Your task to perform on an android device: Open Youtube and go to "Your channel" Image 0: 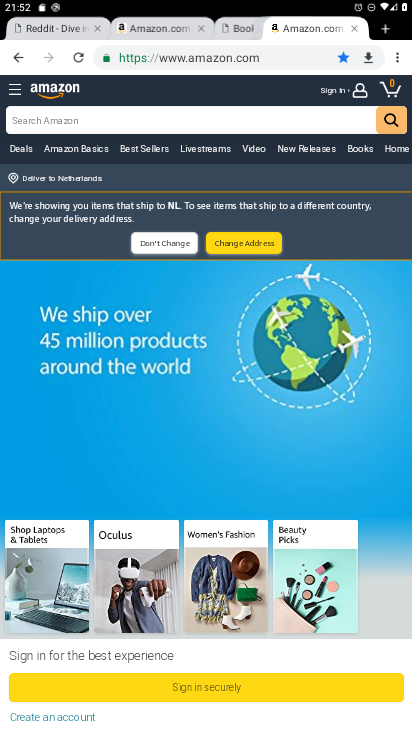
Step 0: press home button
Your task to perform on an android device: Open Youtube and go to "Your channel" Image 1: 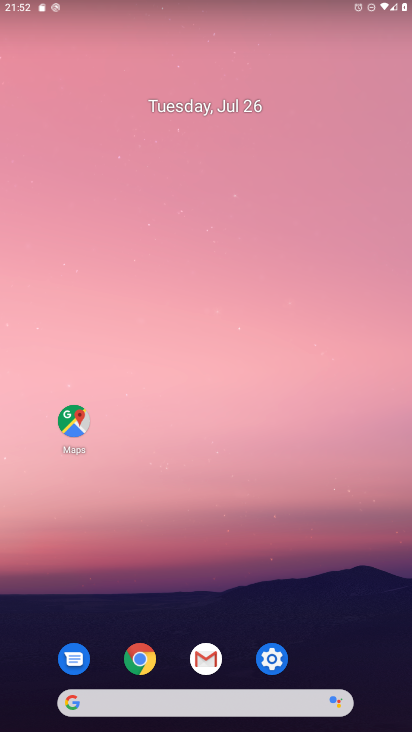
Step 1: click (144, 659)
Your task to perform on an android device: Open Youtube and go to "Your channel" Image 2: 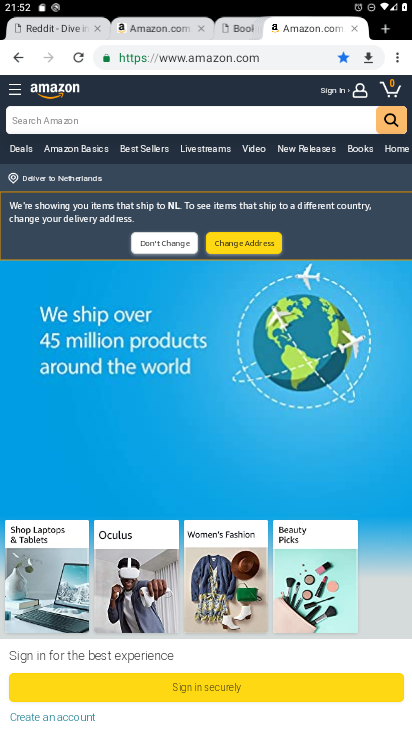
Step 2: press home button
Your task to perform on an android device: Open Youtube and go to "Your channel" Image 3: 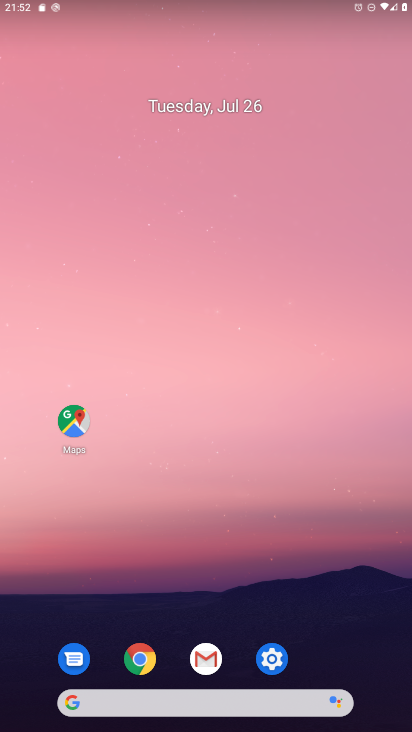
Step 3: drag from (248, 700) to (242, 223)
Your task to perform on an android device: Open Youtube and go to "Your channel" Image 4: 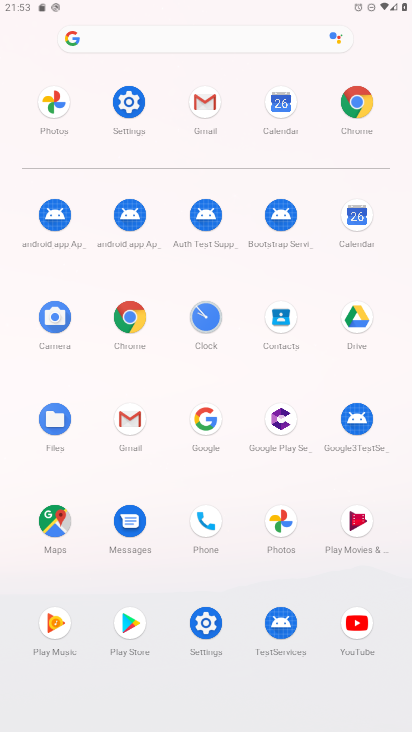
Step 4: click (369, 622)
Your task to perform on an android device: Open Youtube and go to "Your channel" Image 5: 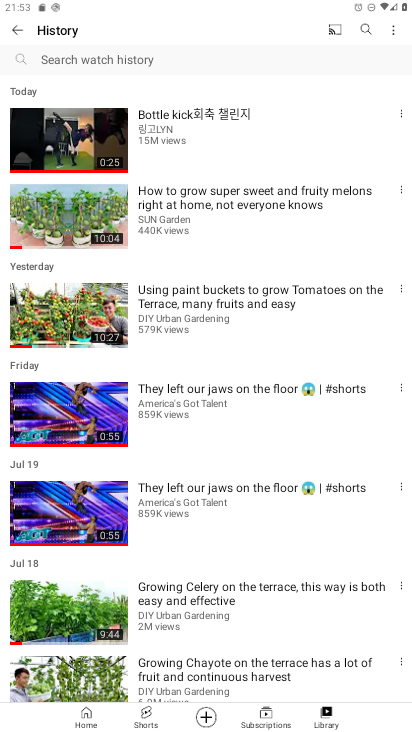
Step 5: click (16, 30)
Your task to perform on an android device: Open Youtube and go to "Your channel" Image 6: 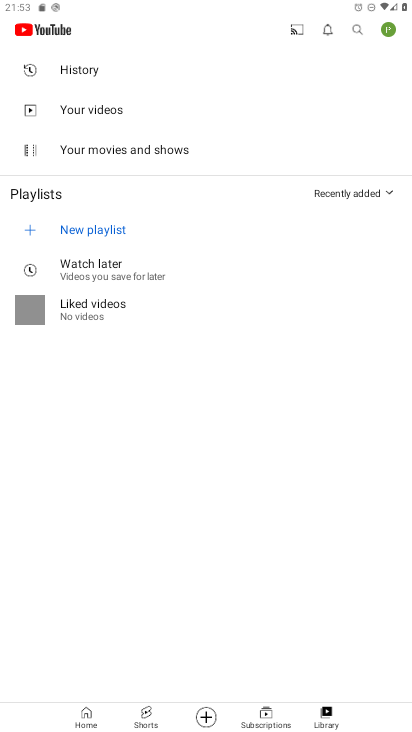
Step 6: click (395, 35)
Your task to perform on an android device: Open Youtube and go to "Your channel" Image 7: 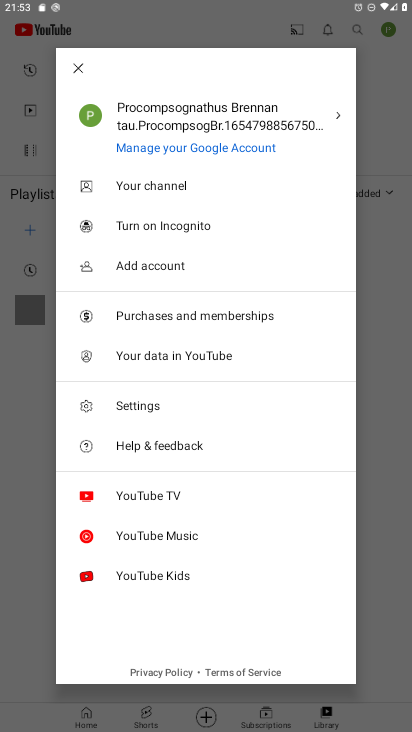
Step 7: click (149, 189)
Your task to perform on an android device: Open Youtube and go to "Your channel" Image 8: 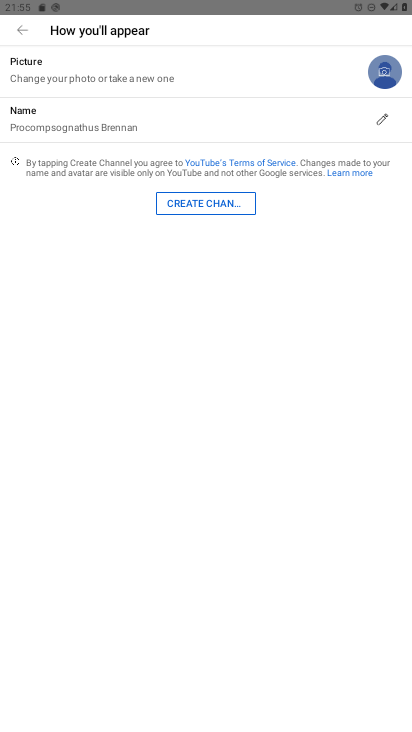
Step 8: task complete